Your task to perform on an android device: What is the news today? Image 0: 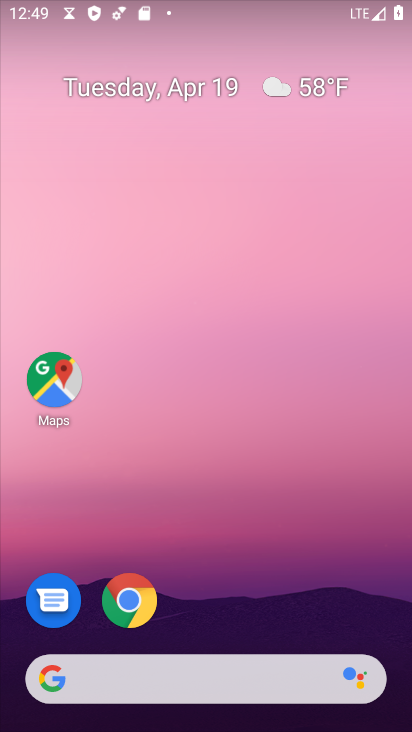
Step 0: drag from (220, 620) to (191, 274)
Your task to perform on an android device: What is the news today? Image 1: 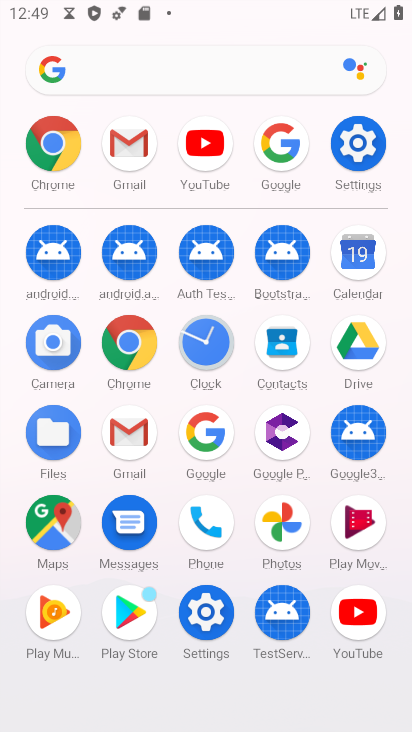
Step 1: click (195, 440)
Your task to perform on an android device: What is the news today? Image 2: 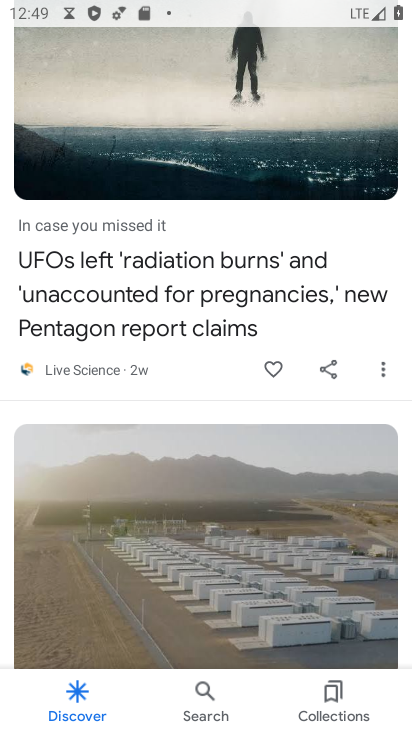
Step 2: task complete